Your task to perform on an android device: When is my next meeting? Image 0: 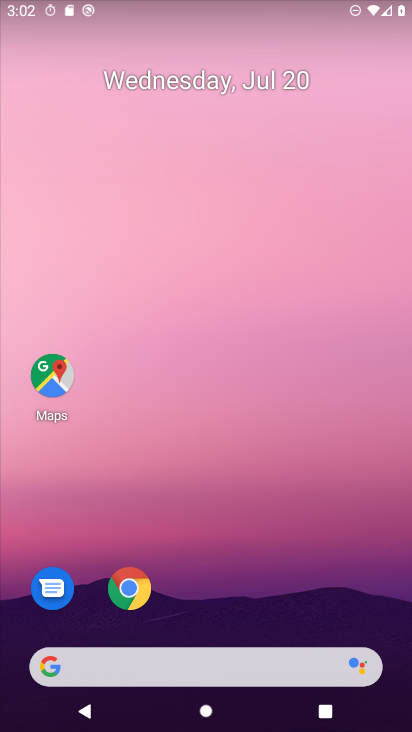
Step 0: click (186, 676)
Your task to perform on an android device: When is my next meeting? Image 1: 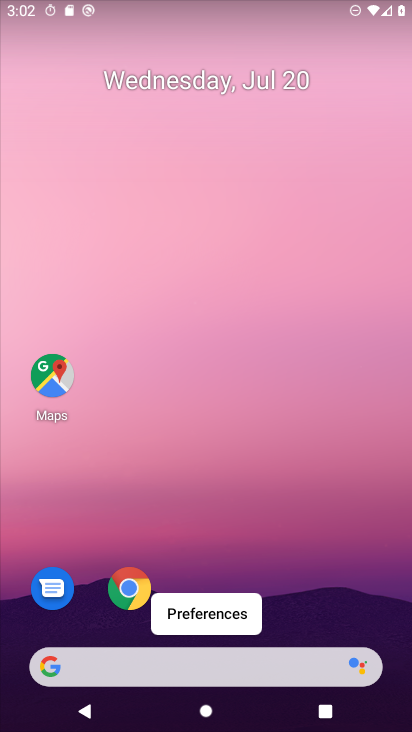
Step 1: drag from (242, 630) to (191, 119)
Your task to perform on an android device: When is my next meeting? Image 2: 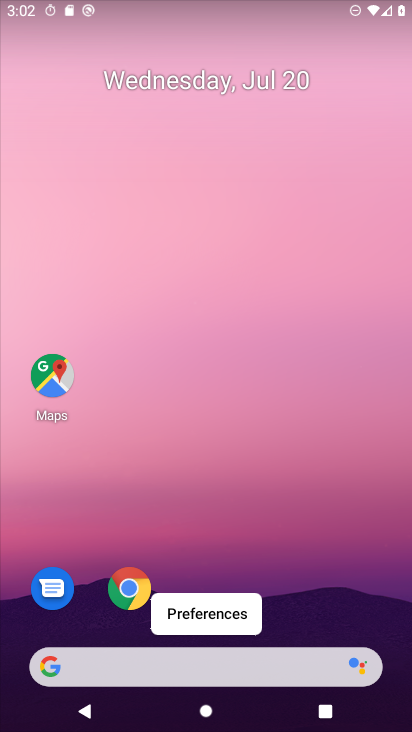
Step 2: click (287, 558)
Your task to perform on an android device: When is my next meeting? Image 3: 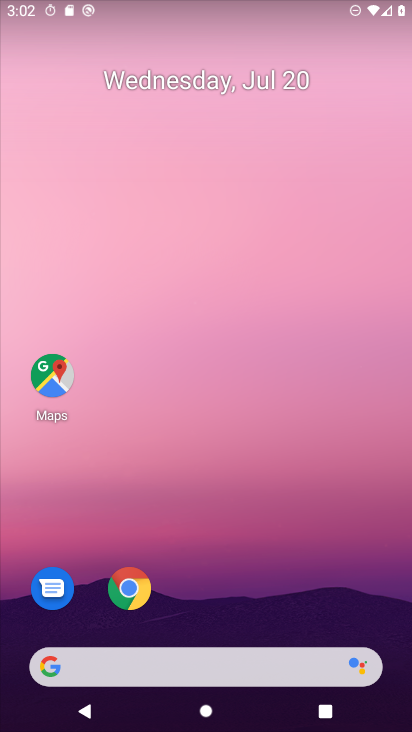
Step 3: drag from (233, 624) to (278, 13)
Your task to perform on an android device: When is my next meeting? Image 4: 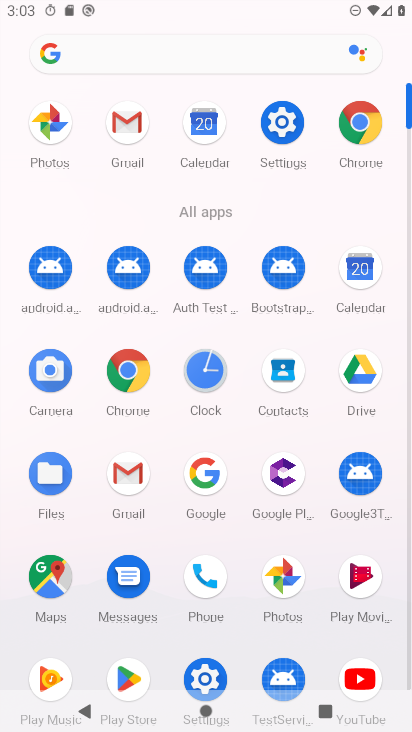
Step 4: click (351, 261)
Your task to perform on an android device: When is my next meeting? Image 5: 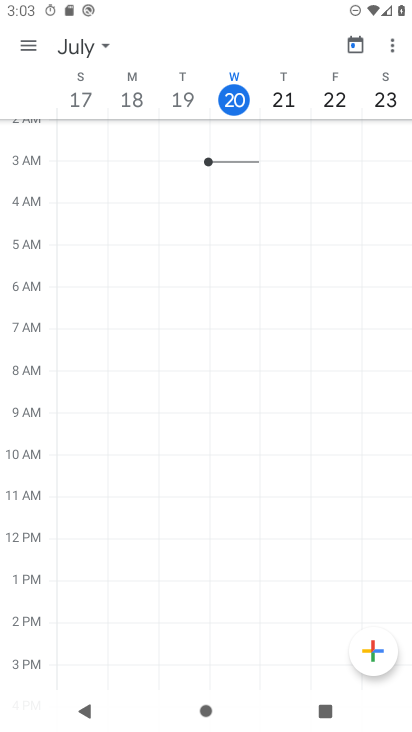
Step 5: click (279, 90)
Your task to perform on an android device: When is my next meeting? Image 6: 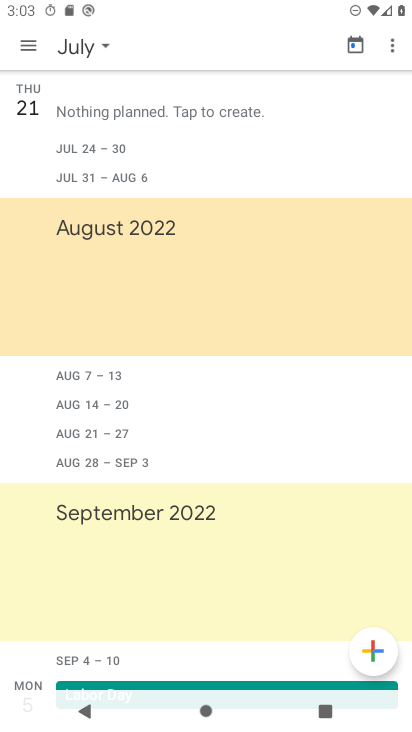
Step 6: click (365, 49)
Your task to perform on an android device: When is my next meeting? Image 7: 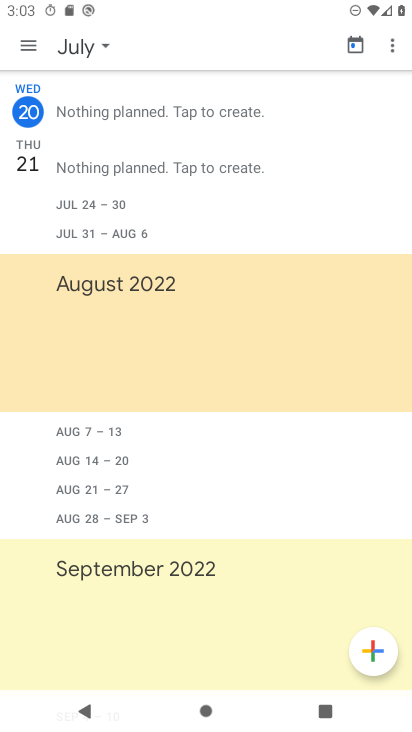
Step 7: click (365, 49)
Your task to perform on an android device: When is my next meeting? Image 8: 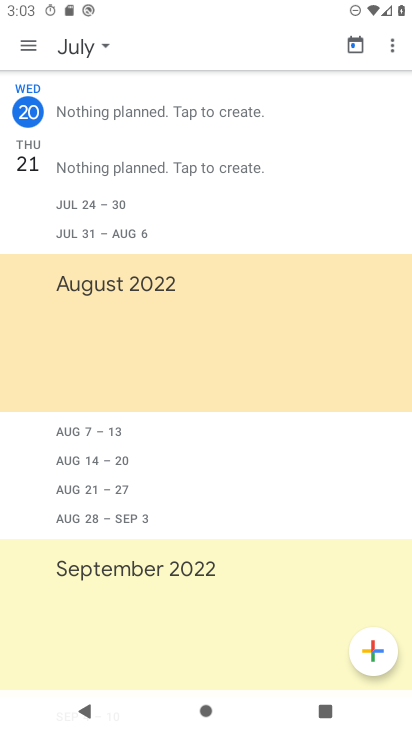
Step 8: click (30, 42)
Your task to perform on an android device: When is my next meeting? Image 9: 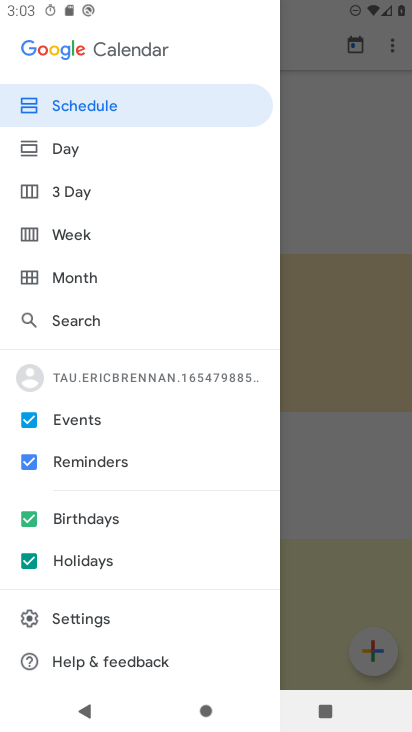
Step 9: click (102, 247)
Your task to perform on an android device: When is my next meeting? Image 10: 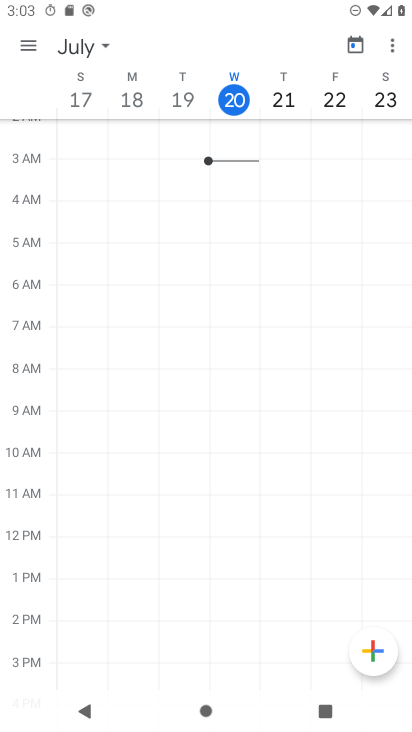
Step 10: drag from (372, 88) to (86, 6)
Your task to perform on an android device: When is my next meeting? Image 11: 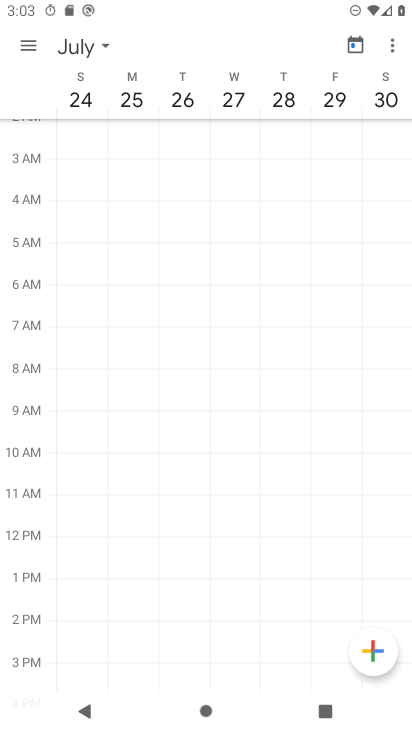
Step 11: click (26, 42)
Your task to perform on an android device: When is my next meeting? Image 12: 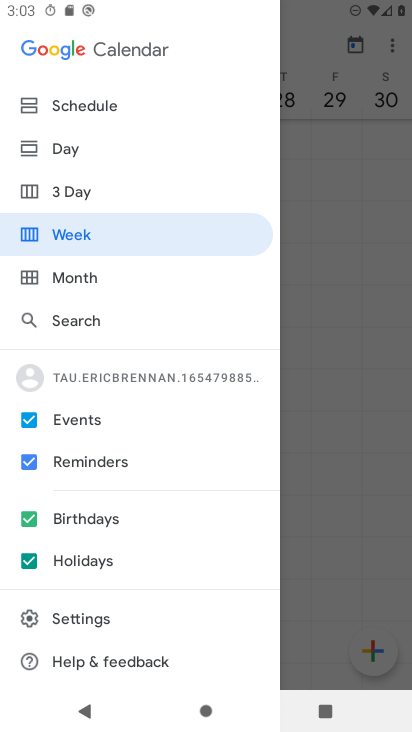
Step 12: click (79, 281)
Your task to perform on an android device: When is my next meeting? Image 13: 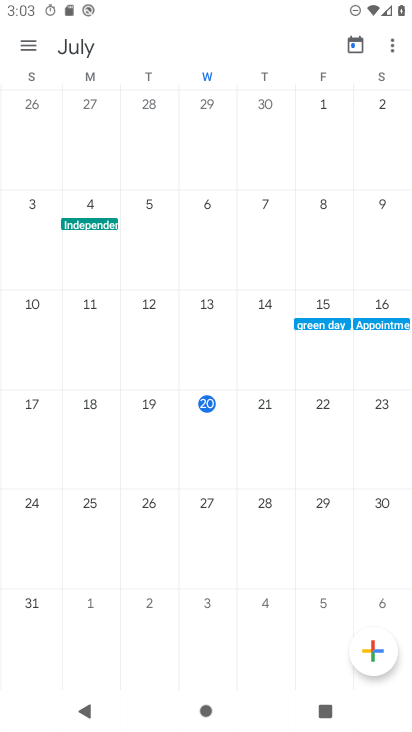
Step 13: task complete